Your task to perform on an android device: change the clock style Image 0: 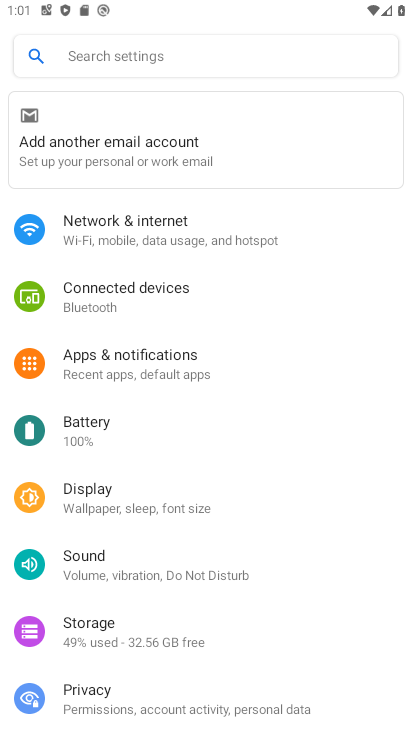
Step 0: drag from (314, 613) to (316, 285)
Your task to perform on an android device: change the clock style Image 1: 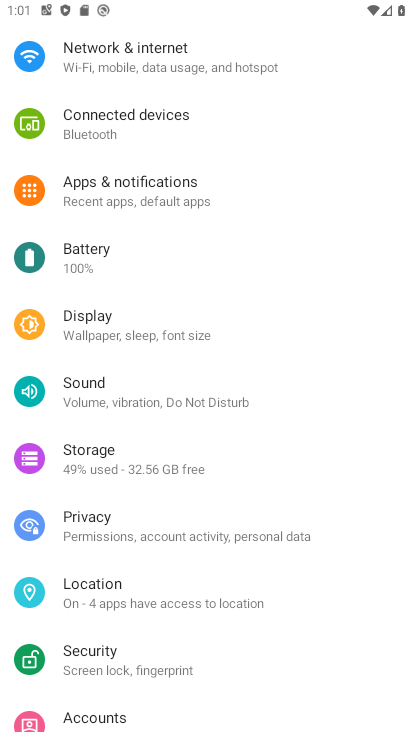
Step 1: press home button
Your task to perform on an android device: change the clock style Image 2: 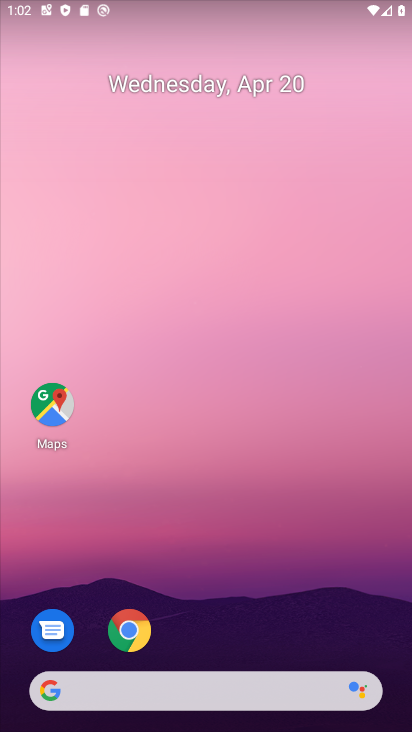
Step 2: drag from (366, 594) to (322, 196)
Your task to perform on an android device: change the clock style Image 3: 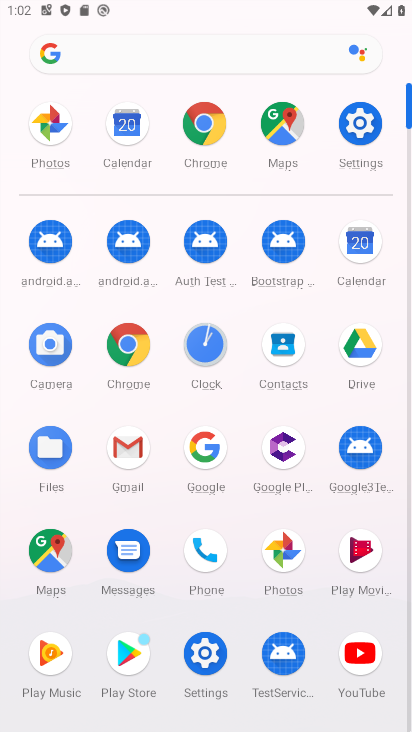
Step 3: click (207, 350)
Your task to perform on an android device: change the clock style Image 4: 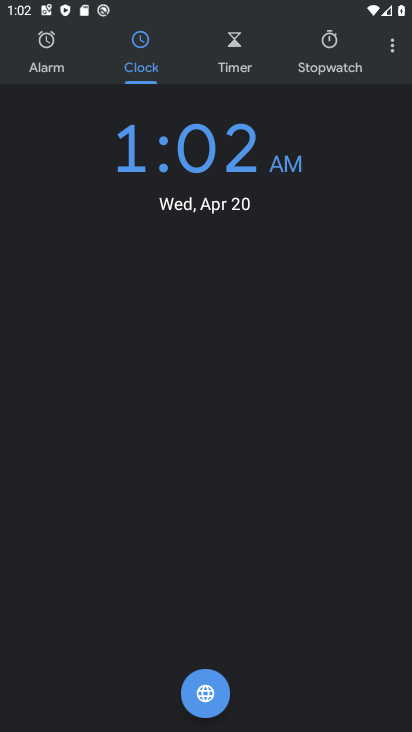
Step 4: click (395, 53)
Your task to perform on an android device: change the clock style Image 5: 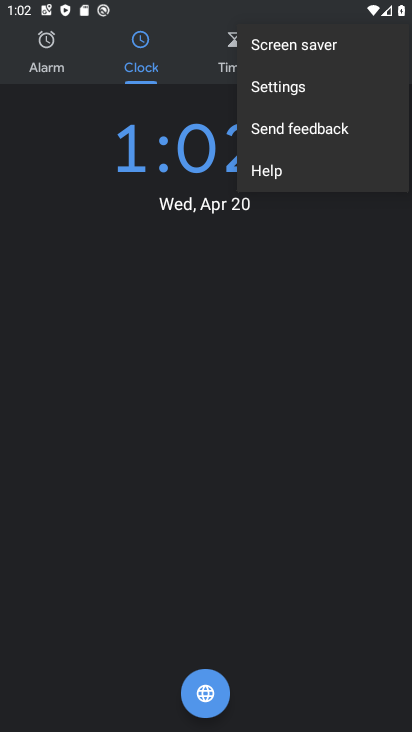
Step 5: click (261, 95)
Your task to perform on an android device: change the clock style Image 6: 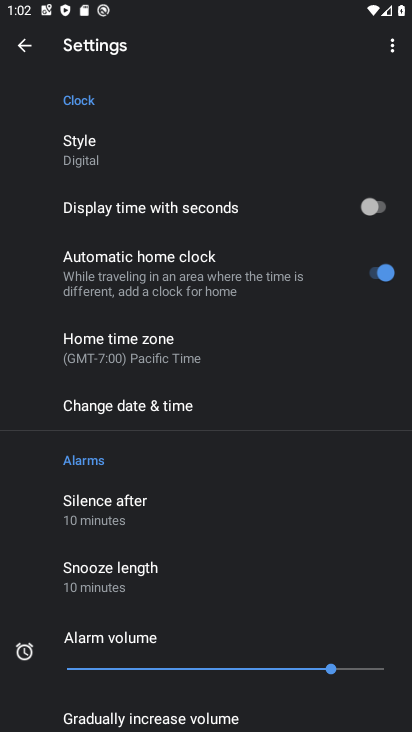
Step 6: click (88, 153)
Your task to perform on an android device: change the clock style Image 7: 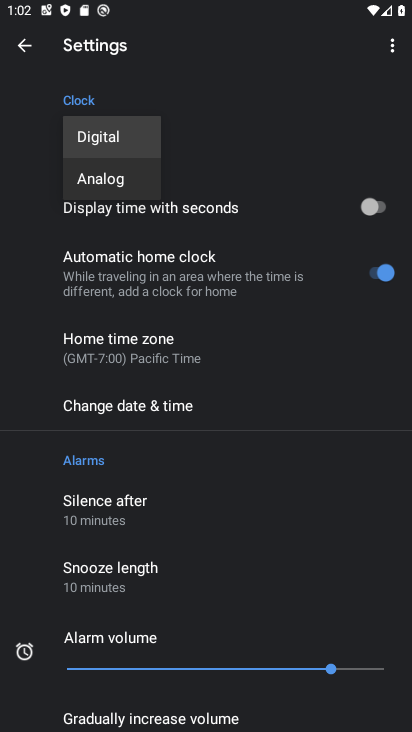
Step 7: click (100, 176)
Your task to perform on an android device: change the clock style Image 8: 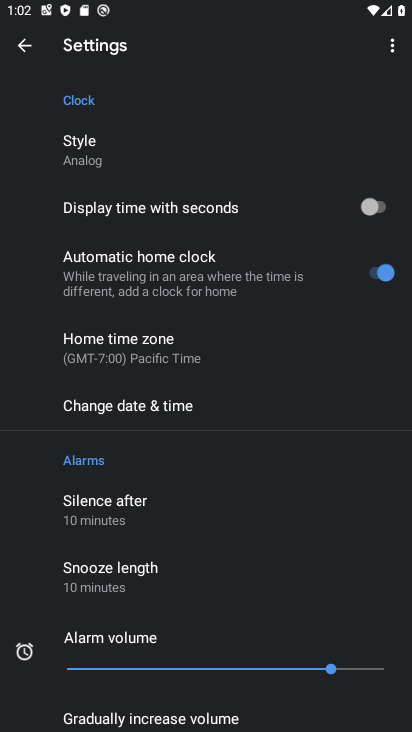
Step 8: task complete